Your task to perform on an android device: change the clock display to show seconds Image 0: 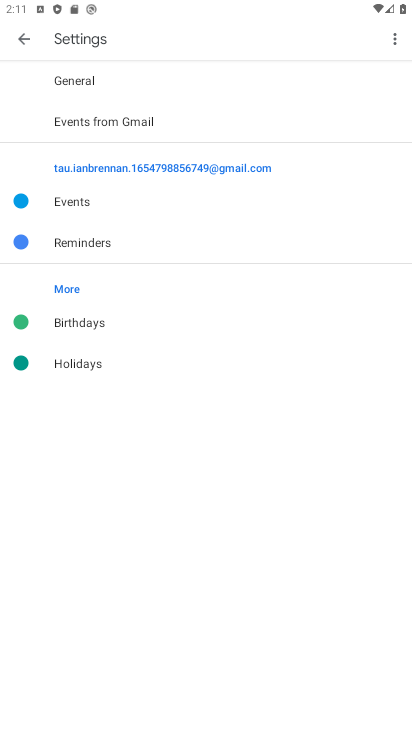
Step 0: press back button
Your task to perform on an android device: change the clock display to show seconds Image 1: 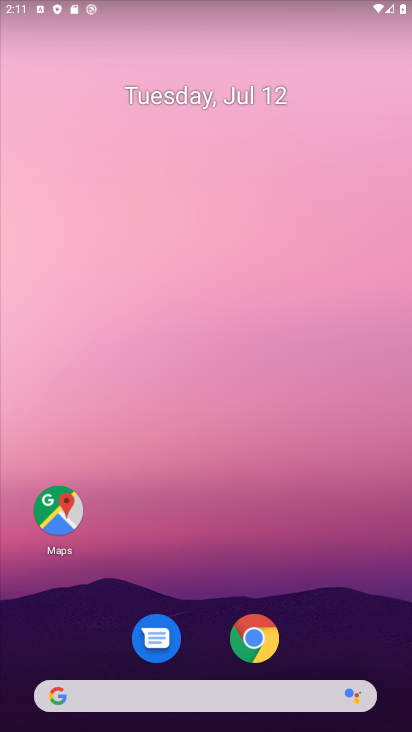
Step 1: drag from (93, 618) to (173, 83)
Your task to perform on an android device: change the clock display to show seconds Image 2: 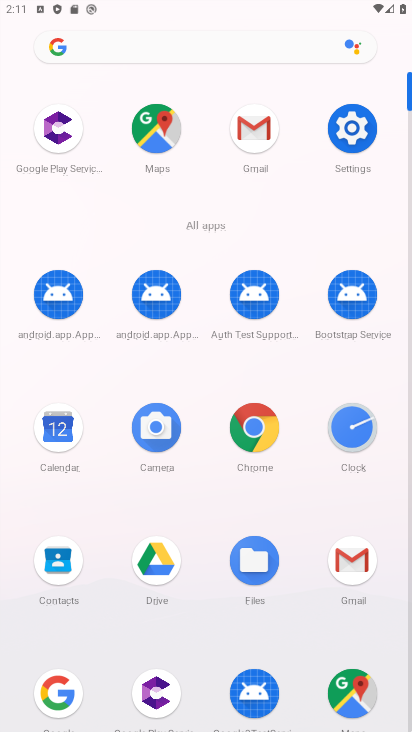
Step 2: click (357, 434)
Your task to perform on an android device: change the clock display to show seconds Image 3: 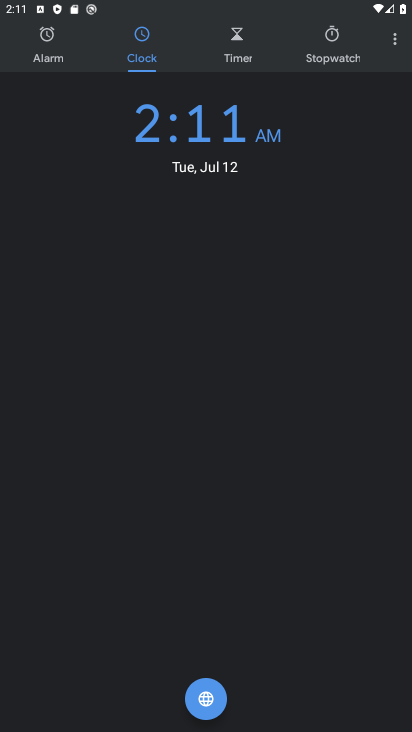
Step 3: click (396, 30)
Your task to perform on an android device: change the clock display to show seconds Image 4: 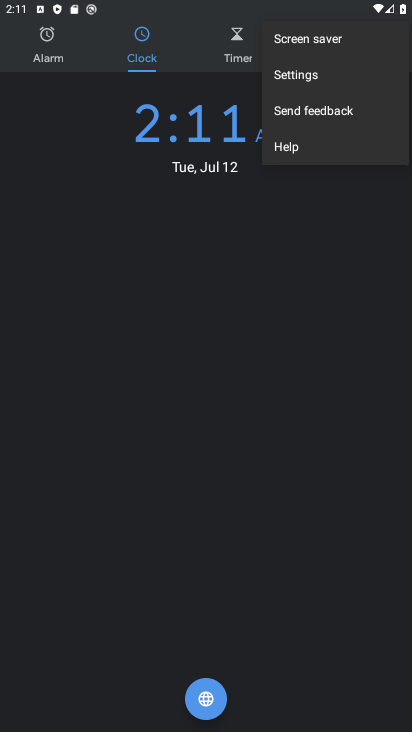
Step 4: click (326, 79)
Your task to perform on an android device: change the clock display to show seconds Image 5: 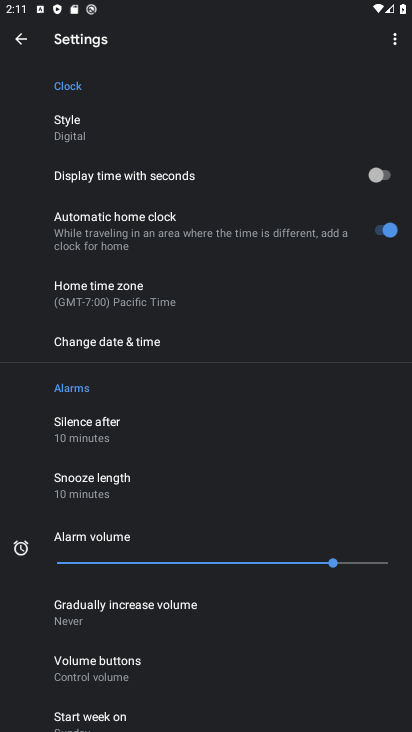
Step 5: click (378, 177)
Your task to perform on an android device: change the clock display to show seconds Image 6: 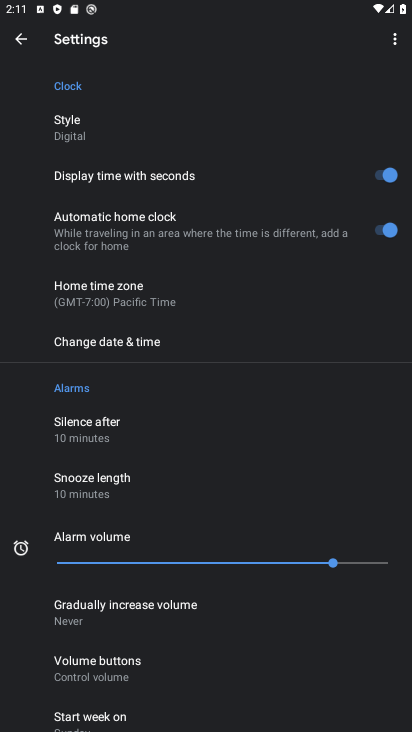
Step 6: task complete